Your task to perform on an android device: turn on sleep mode Image 0: 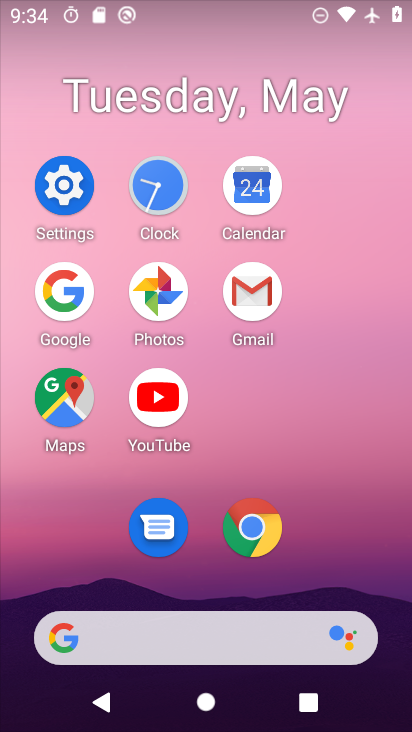
Step 0: click (77, 203)
Your task to perform on an android device: turn on sleep mode Image 1: 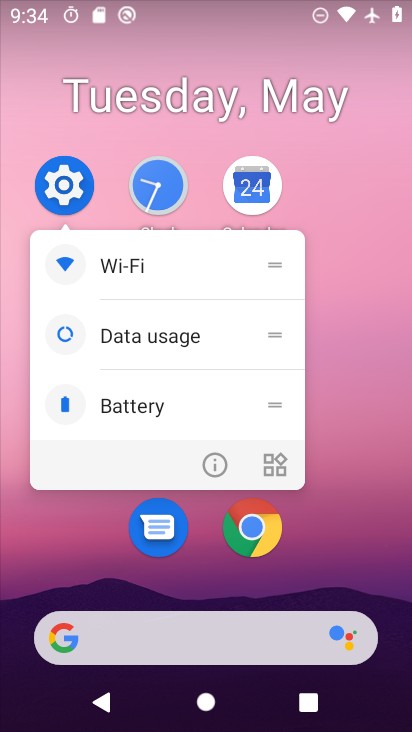
Step 1: click (61, 189)
Your task to perform on an android device: turn on sleep mode Image 2: 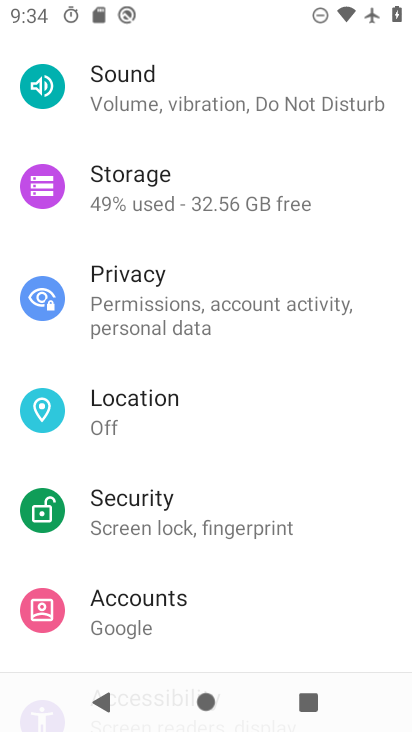
Step 2: drag from (248, 181) to (262, 479)
Your task to perform on an android device: turn on sleep mode Image 3: 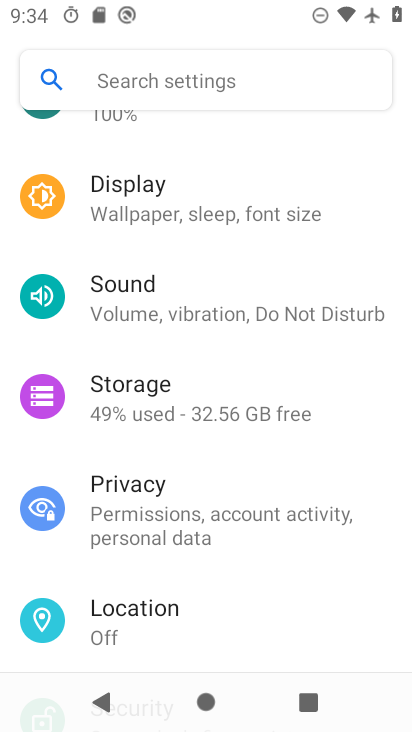
Step 3: click (178, 202)
Your task to perform on an android device: turn on sleep mode Image 4: 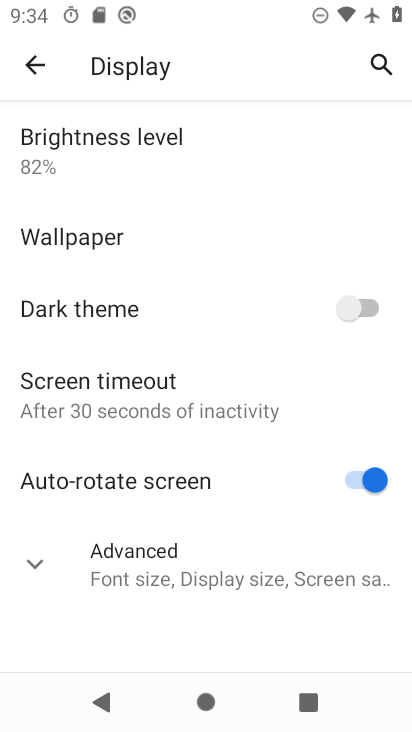
Step 4: click (229, 426)
Your task to perform on an android device: turn on sleep mode Image 5: 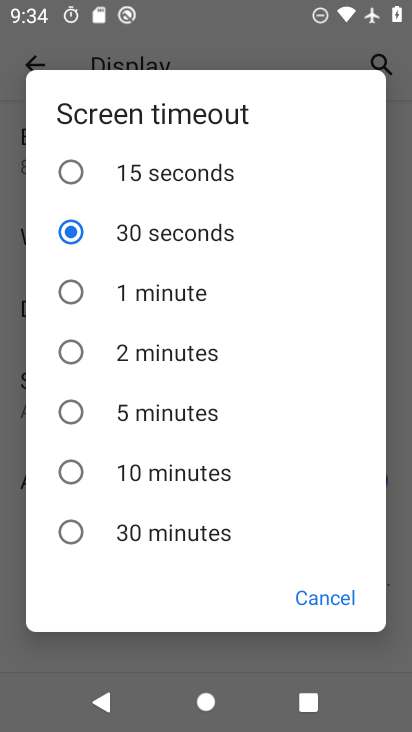
Step 5: task complete